Your task to perform on an android device: delete a single message in the gmail app Image 0: 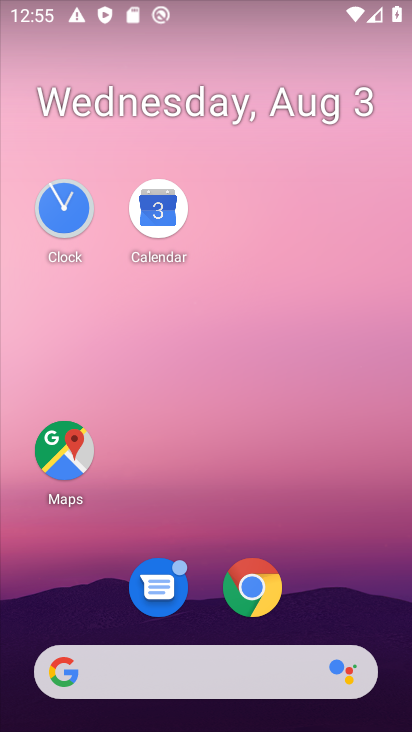
Step 0: drag from (336, 537) to (377, 218)
Your task to perform on an android device: delete a single message in the gmail app Image 1: 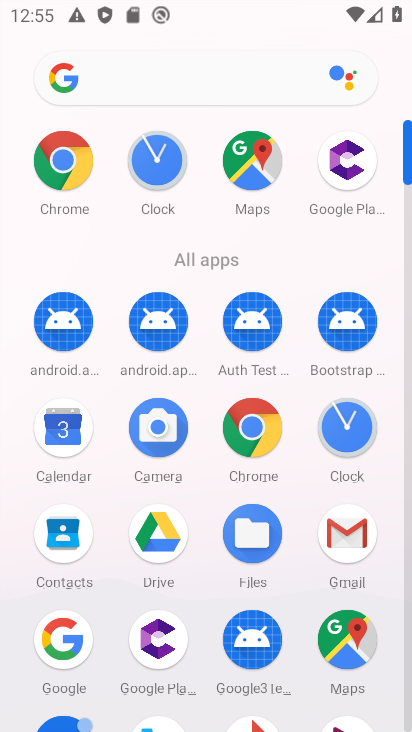
Step 1: drag from (340, 536) to (145, 332)
Your task to perform on an android device: delete a single message in the gmail app Image 2: 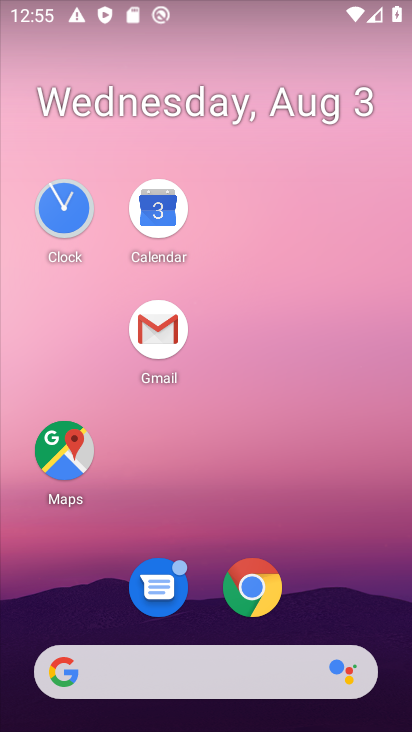
Step 2: click (164, 325)
Your task to perform on an android device: delete a single message in the gmail app Image 3: 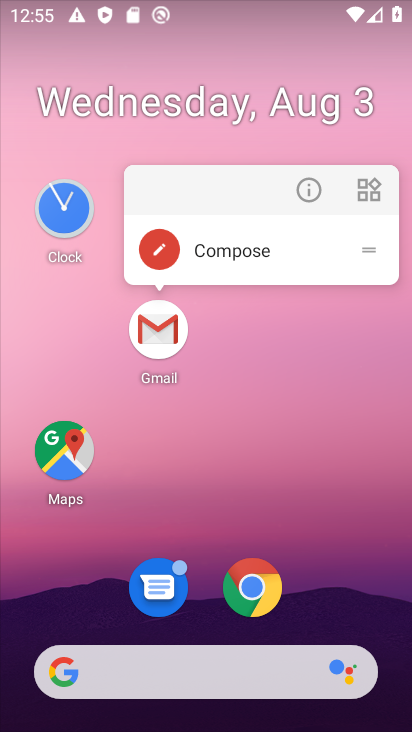
Step 3: click (150, 319)
Your task to perform on an android device: delete a single message in the gmail app Image 4: 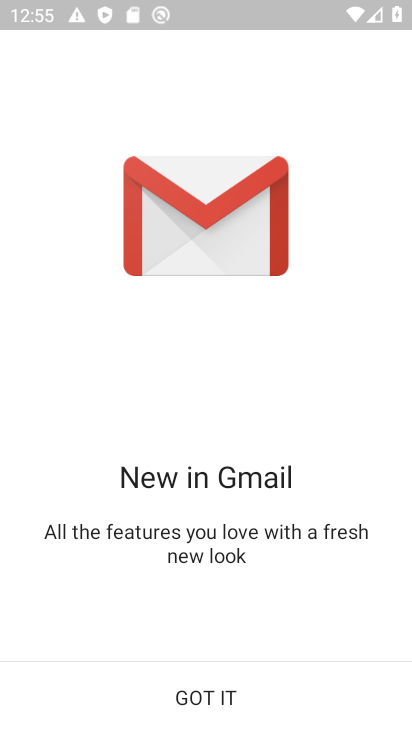
Step 4: click (256, 671)
Your task to perform on an android device: delete a single message in the gmail app Image 5: 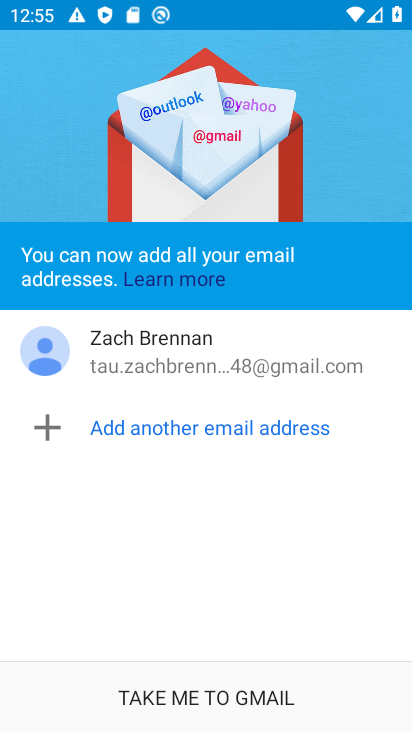
Step 5: drag from (256, 671) to (342, 671)
Your task to perform on an android device: delete a single message in the gmail app Image 6: 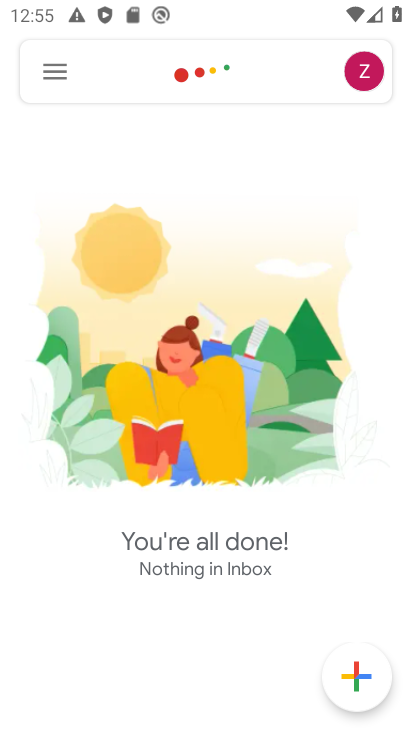
Step 6: click (67, 80)
Your task to perform on an android device: delete a single message in the gmail app Image 7: 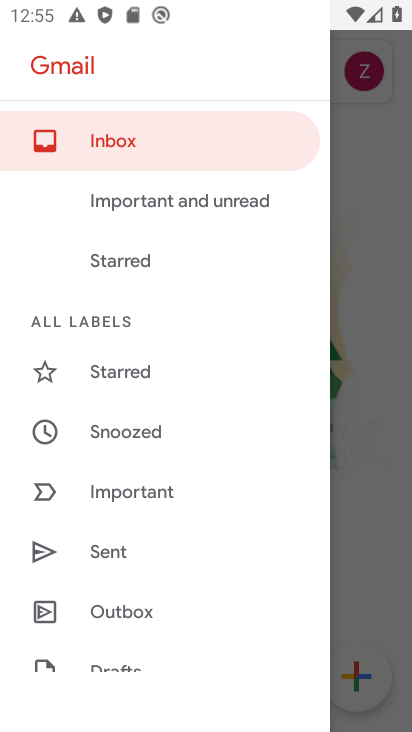
Step 7: drag from (240, 551) to (240, 204)
Your task to perform on an android device: delete a single message in the gmail app Image 8: 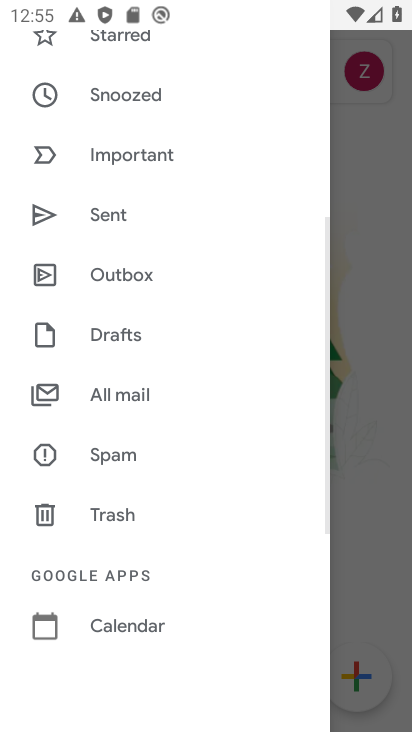
Step 8: drag from (240, 201) to (286, 563)
Your task to perform on an android device: delete a single message in the gmail app Image 9: 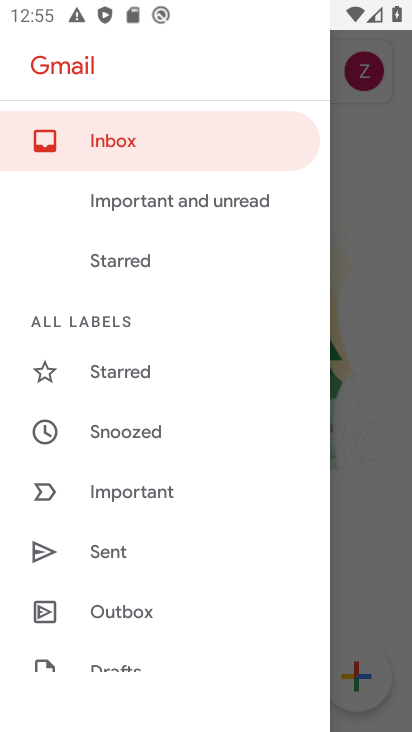
Step 9: click (136, 154)
Your task to perform on an android device: delete a single message in the gmail app Image 10: 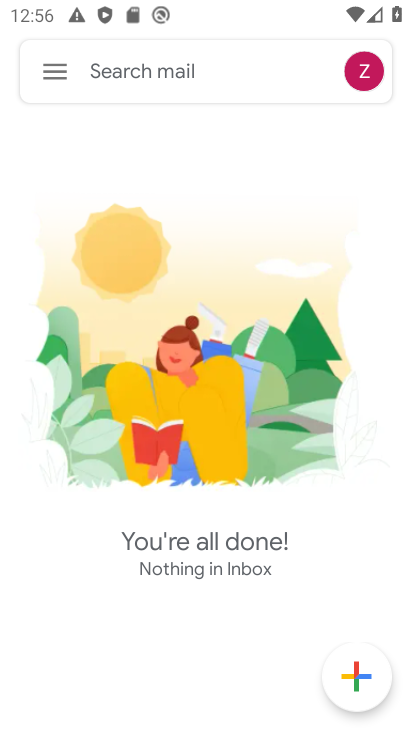
Step 10: task complete